Your task to perform on an android device: see creations saved in the google photos Image 0: 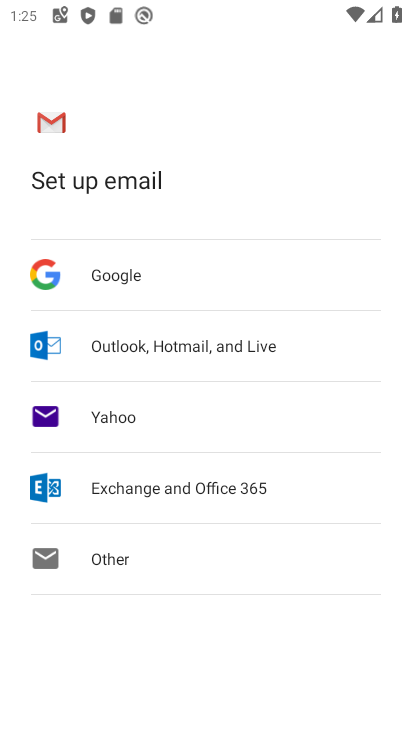
Step 0: press home button
Your task to perform on an android device: see creations saved in the google photos Image 1: 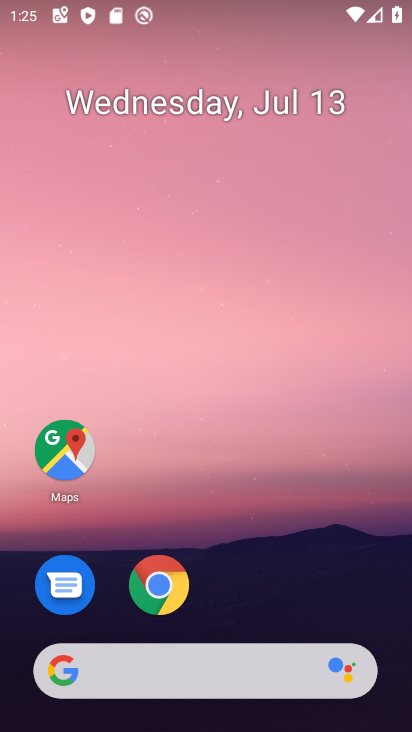
Step 1: drag from (227, 668) to (328, 168)
Your task to perform on an android device: see creations saved in the google photos Image 2: 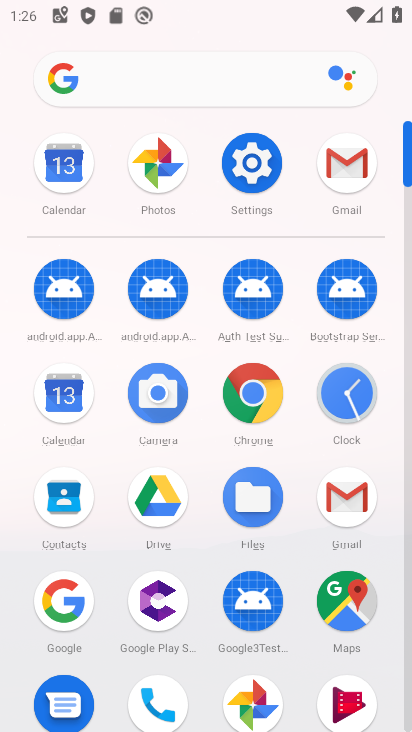
Step 2: click (249, 699)
Your task to perform on an android device: see creations saved in the google photos Image 3: 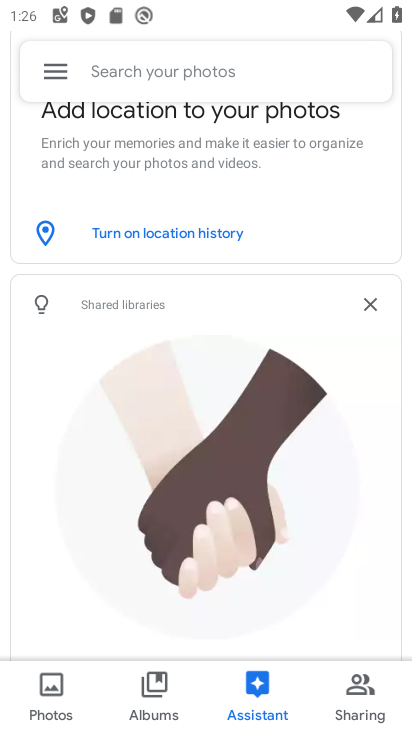
Step 3: click (155, 703)
Your task to perform on an android device: see creations saved in the google photos Image 4: 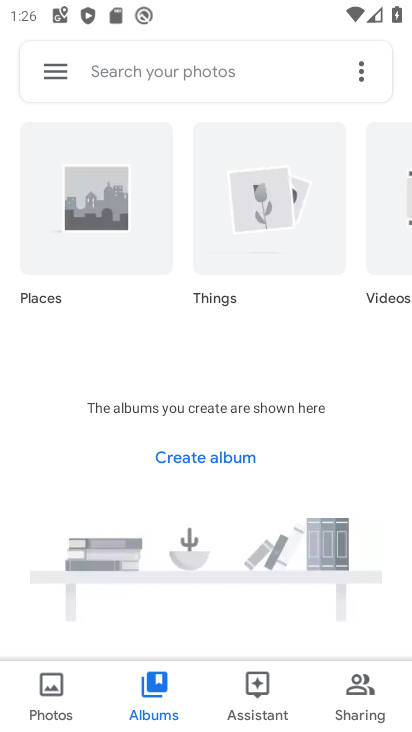
Step 4: click (185, 62)
Your task to perform on an android device: see creations saved in the google photos Image 5: 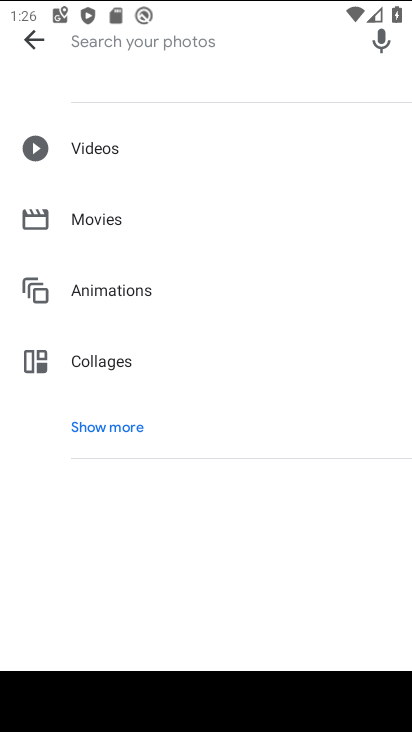
Step 5: click (86, 424)
Your task to perform on an android device: see creations saved in the google photos Image 6: 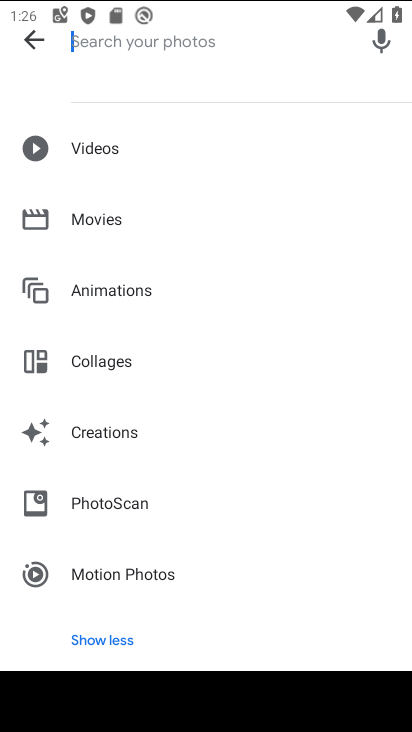
Step 6: click (117, 433)
Your task to perform on an android device: see creations saved in the google photos Image 7: 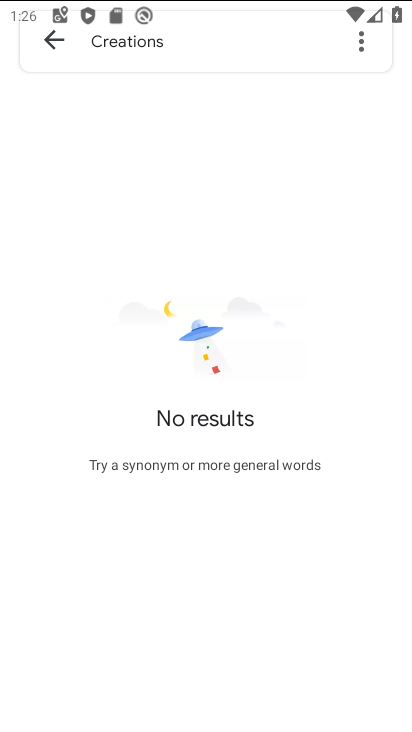
Step 7: task complete